Your task to perform on an android device: change keyboard looks Image 0: 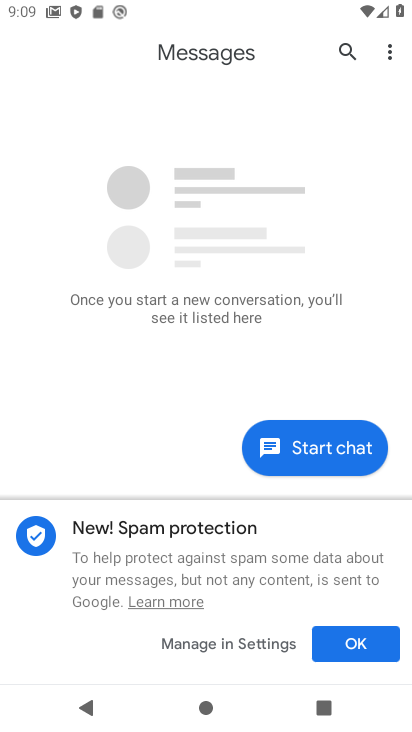
Step 0: press home button
Your task to perform on an android device: change keyboard looks Image 1: 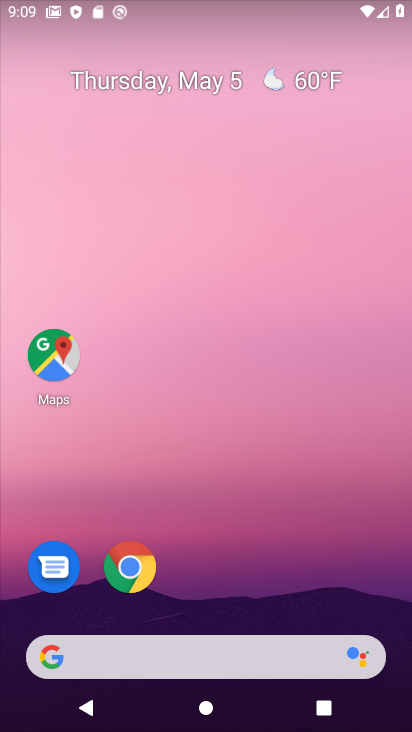
Step 1: drag from (209, 594) to (184, 92)
Your task to perform on an android device: change keyboard looks Image 2: 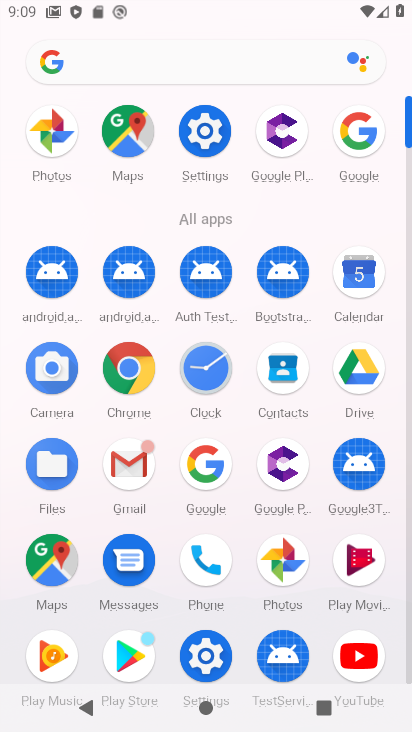
Step 2: click (195, 119)
Your task to perform on an android device: change keyboard looks Image 3: 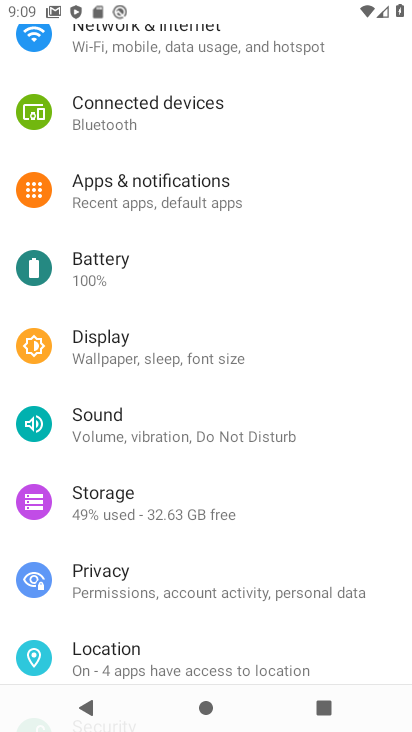
Step 3: drag from (180, 611) to (175, 252)
Your task to perform on an android device: change keyboard looks Image 4: 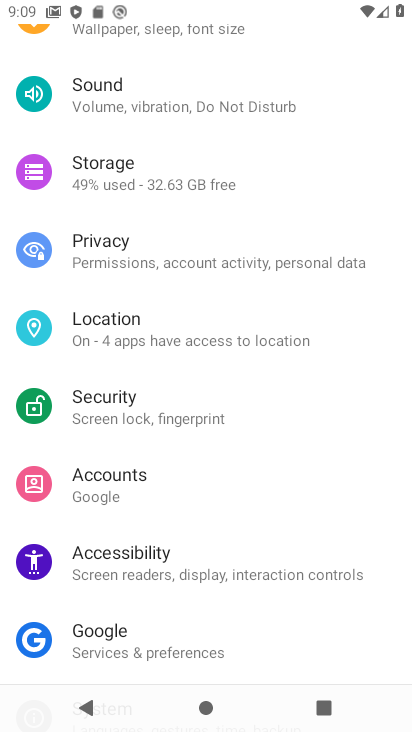
Step 4: drag from (110, 617) to (176, 321)
Your task to perform on an android device: change keyboard looks Image 5: 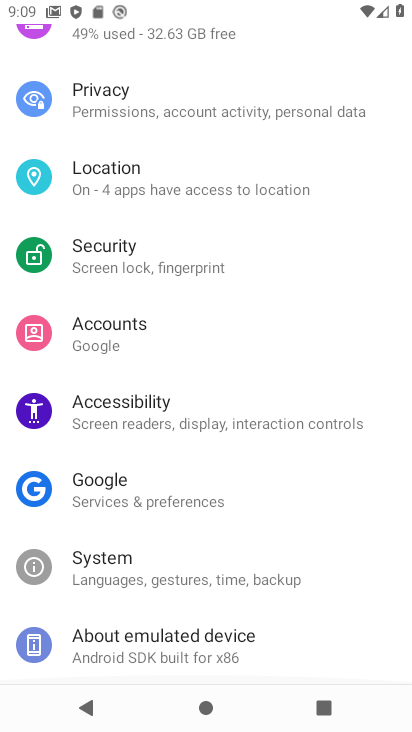
Step 5: click (141, 563)
Your task to perform on an android device: change keyboard looks Image 6: 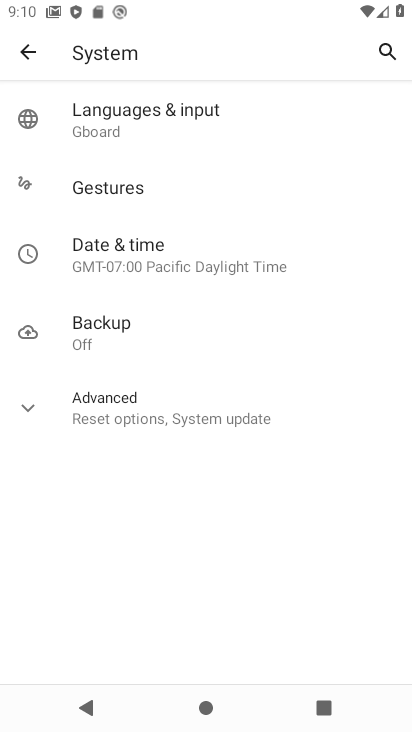
Step 6: click (141, 131)
Your task to perform on an android device: change keyboard looks Image 7: 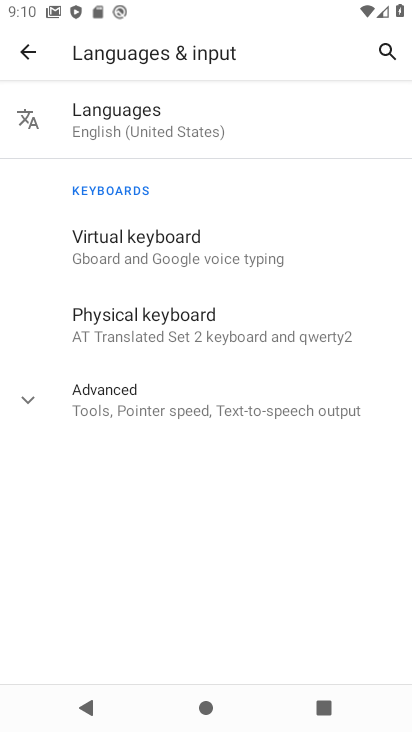
Step 7: click (186, 237)
Your task to perform on an android device: change keyboard looks Image 8: 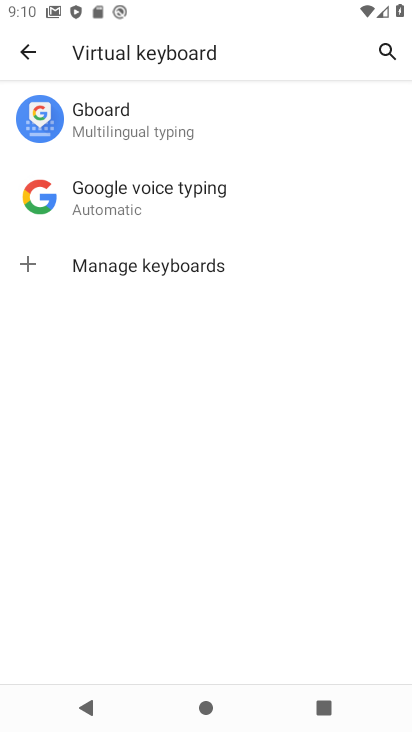
Step 8: click (146, 132)
Your task to perform on an android device: change keyboard looks Image 9: 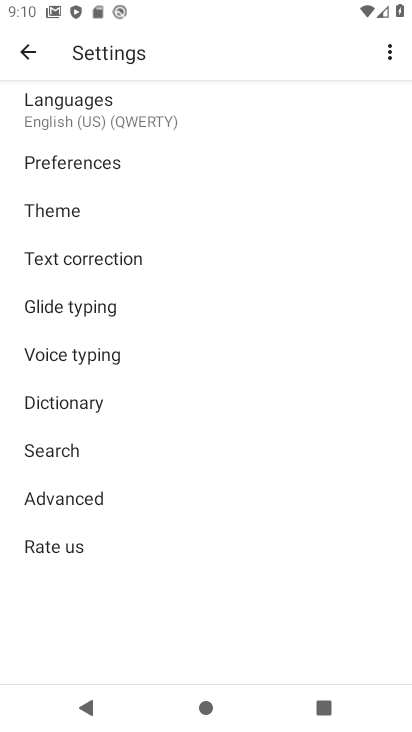
Step 9: click (82, 209)
Your task to perform on an android device: change keyboard looks Image 10: 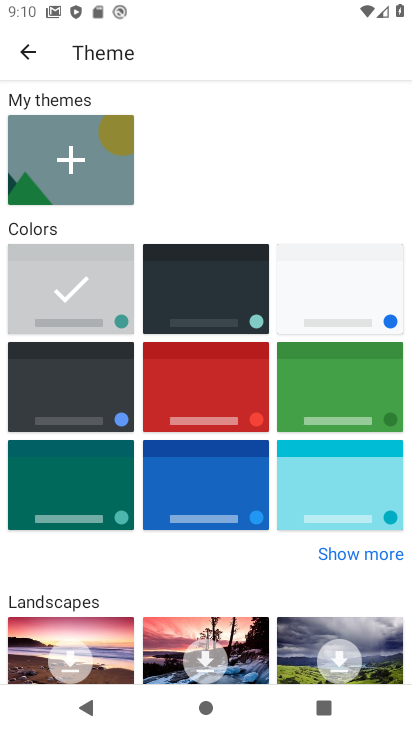
Step 10: click (178, 320)
Your task to perform on an android device: change keyboard looks Image 11: 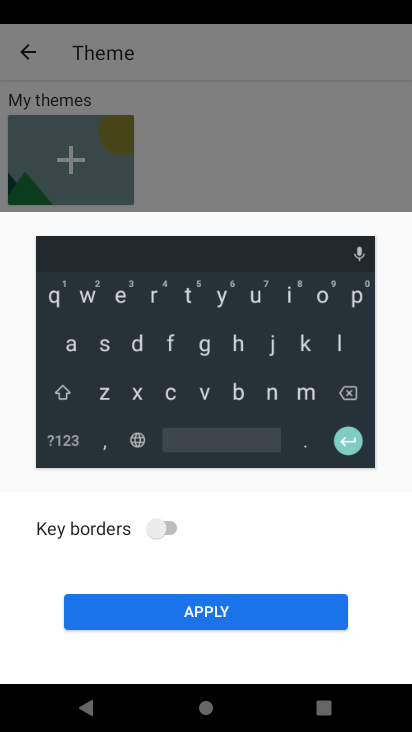
Step 11: click (212, 611)
Your task to perform on an android device: change keyboard looks Image 12: 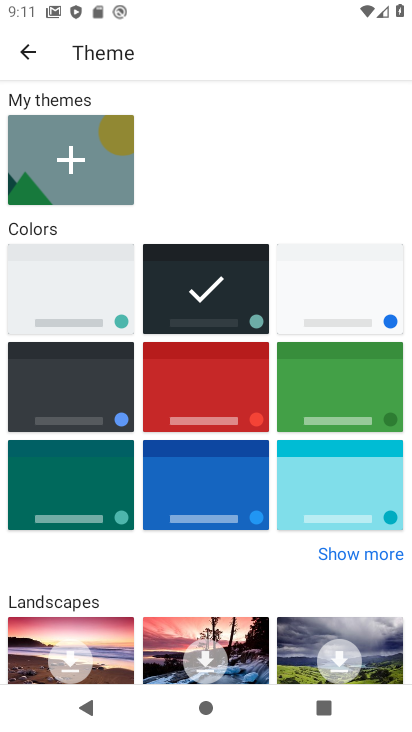
Step 12: task complete